Your task to perform on an android device: Open the Play Movies app and select the watchlist tab. Image 0: 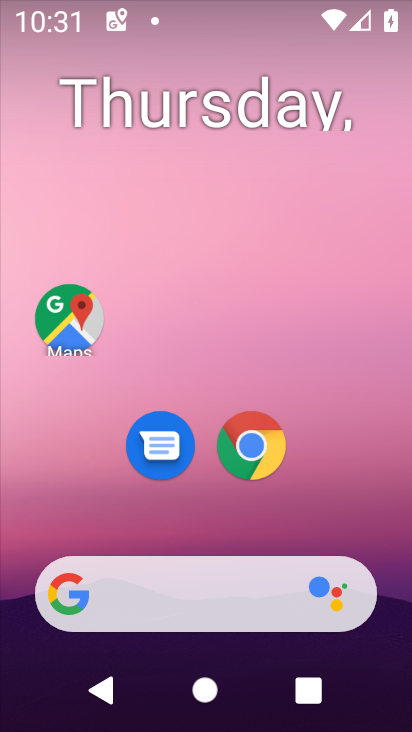
Step 0: drag from (365, 508) to (201, 70)
Your task to perform on an android device: Open the Play Movies app and select the watchlist tab. Image 1: 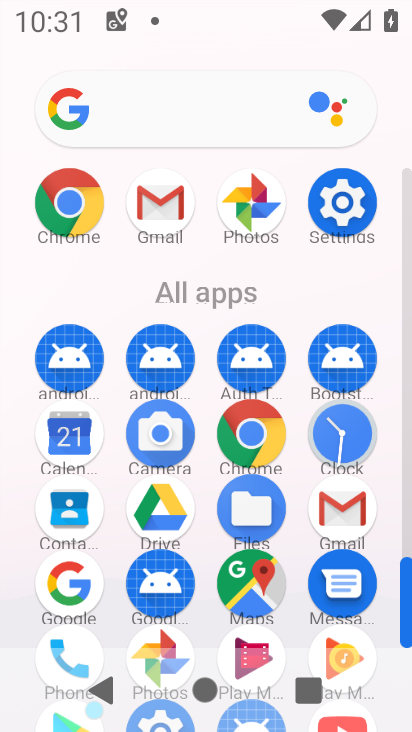
Step 1: click (406, 671)
Your task to perform on an android device: Open the Play Movies app and select the watchlist tab. Image 2: 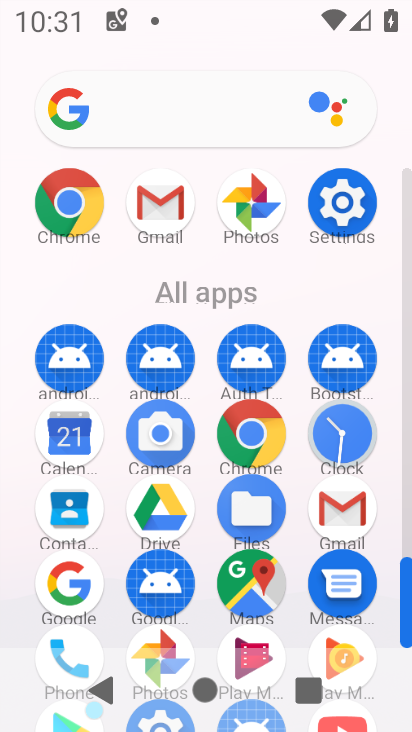
Step 2: drag from (213, 631) to (188, 216)
Your task to perform on an android device: Open the Play Movies app and select the watchlist tab. Image 3: 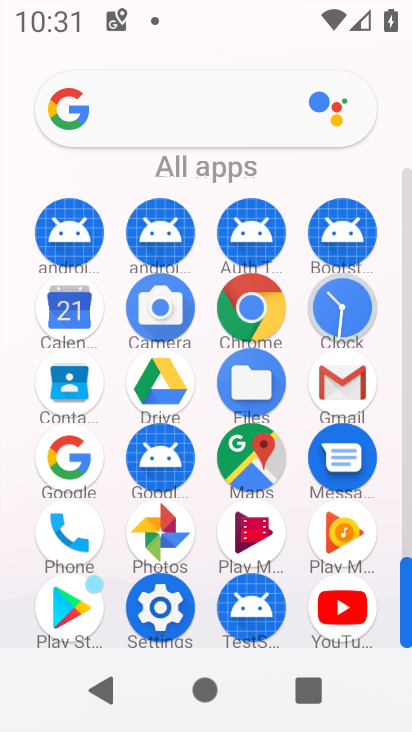
Step 3: click (260, 532)
Your task to perform on an android device: Open the Play Movies app and select the watchlist tab. Image 4: 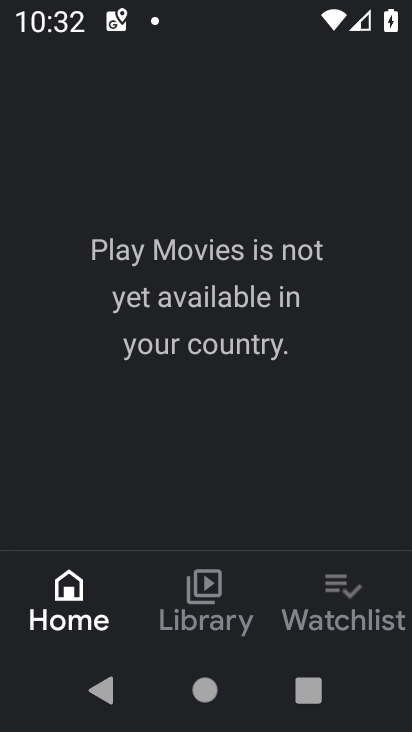
Step 4: click (350, 583)
Your task to perform on an android device: Open the Play Movies app and select the watchlist tab. Image 5: 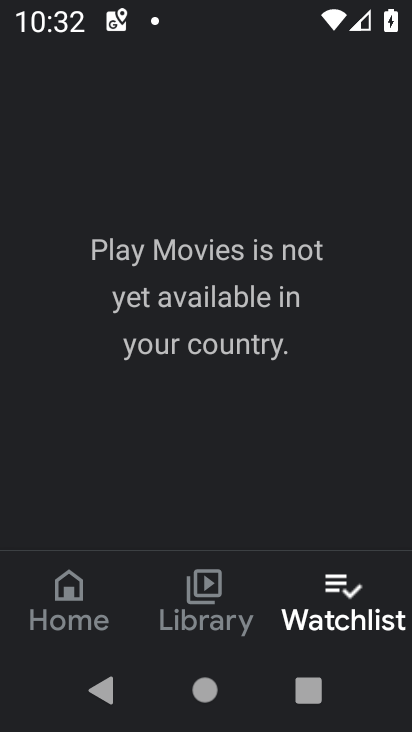
Step 5: task complete